Your task to perform on an android device: Go to notification settings Image 0: 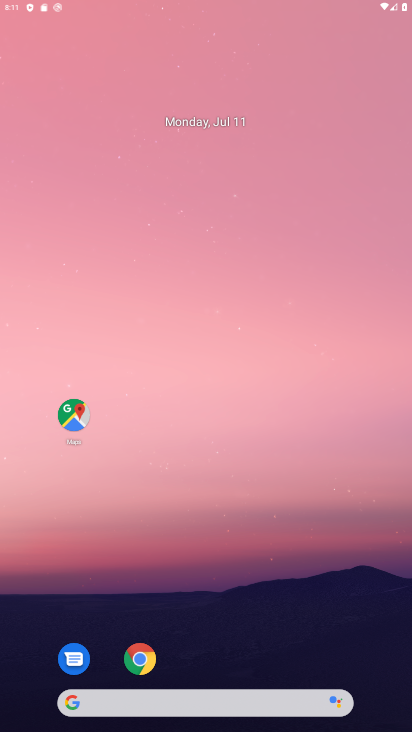
Step 0: press home button
Your task to perform on an android device: Go to notification settings Image 1: 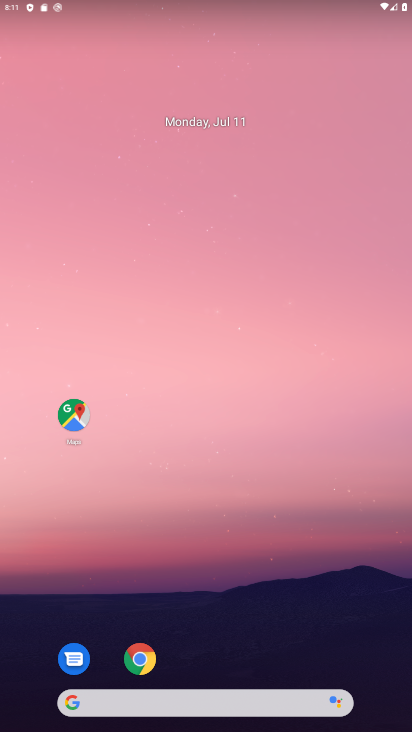
Step 1: drag from (20, 704) to (141, 61)
Your task to perform on an android device: Go to notification settings Image 2: 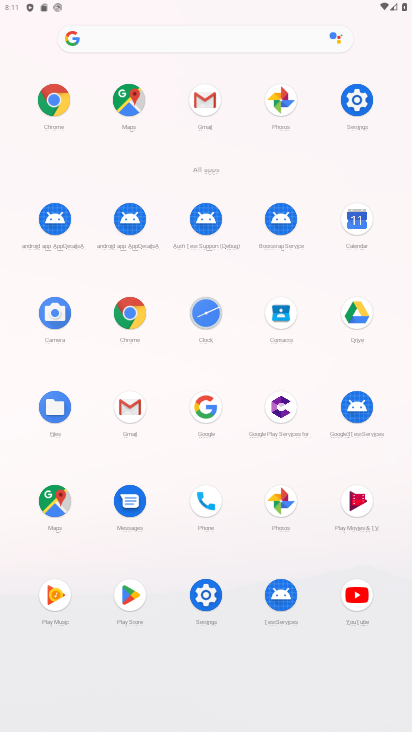
Step 2: click (196, 594)
Your task to perform on an android device: Go to notification settings Image 3: 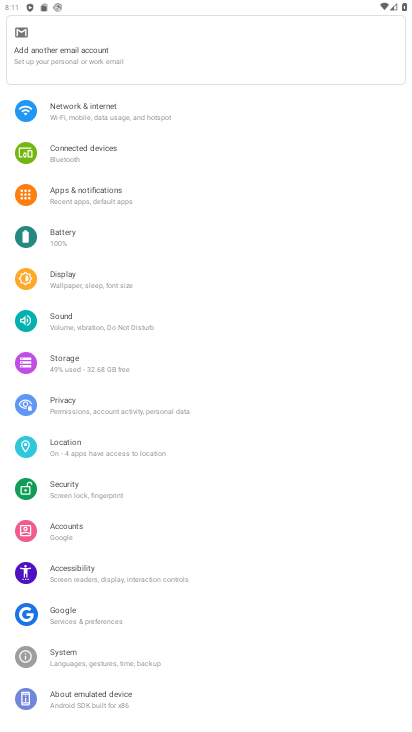
Step 3: click (106, 197)
Your task to perform on an android device: Go to notification settings Image 4: 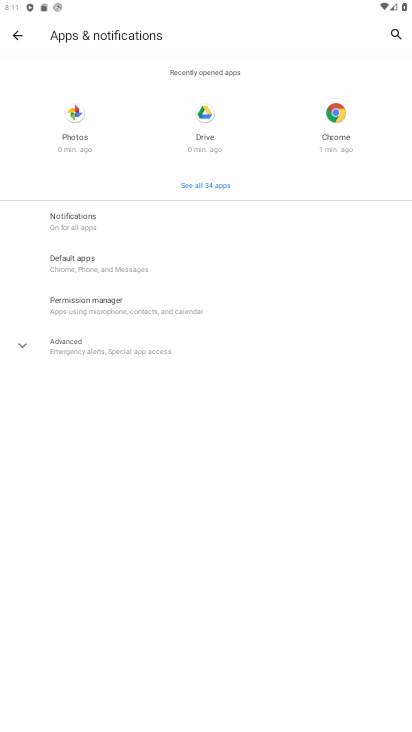
Step 4: task complete